Your task to perform on an android device: Open privacy settings Image 0: 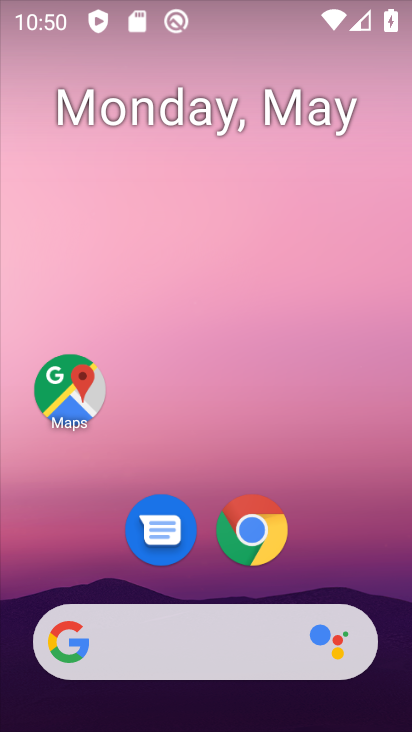
Step 0: drag from (346, 546) to (317, 59)
Your task to perform on an android device: Open privacy settings Image 1: 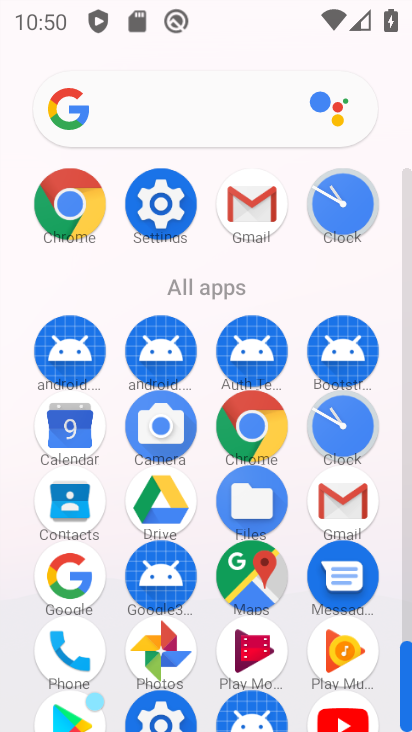
Step 1: drag from (2, 461) to (14, 121)
Your task to perform on an android device: Open privacy settings Image 2: 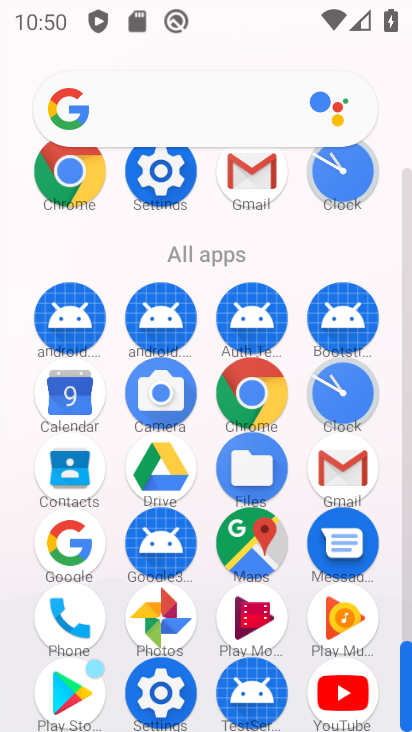
Step 2: drag from (31, 594) to (32, 270)
Your task to perform on an android device: Open privacy settings Image 3: 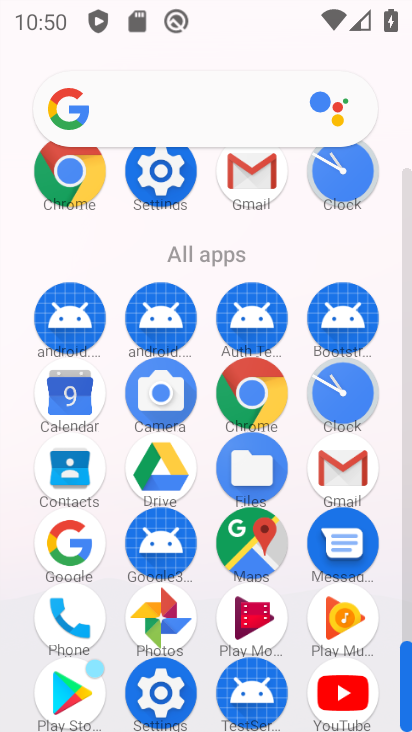
Step 3: click (251, 386)
Your task to perform on an android device: Open privacy settings Image 4: 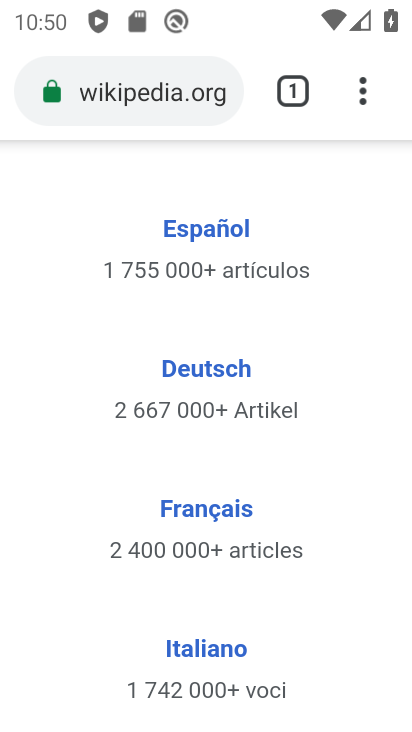
Step 4: drag from (367, 96) to (97, 565)
Your task to perform on an android device: Open privacy settings Image 5: 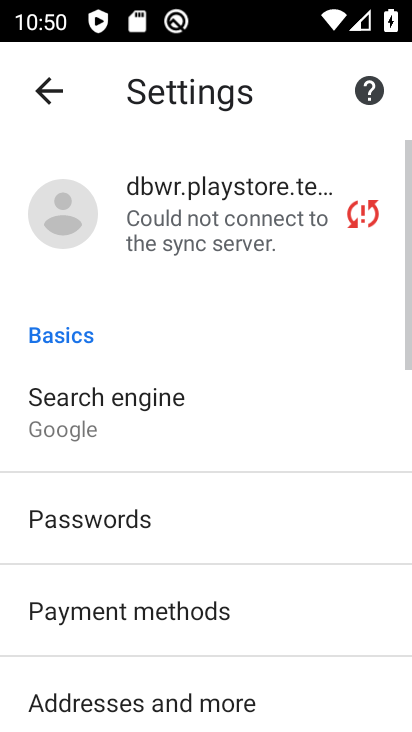
Step 5: drag from (221, 581) to (224, 208)
Your task to perform on an android device: Open privacy settings Image 6: 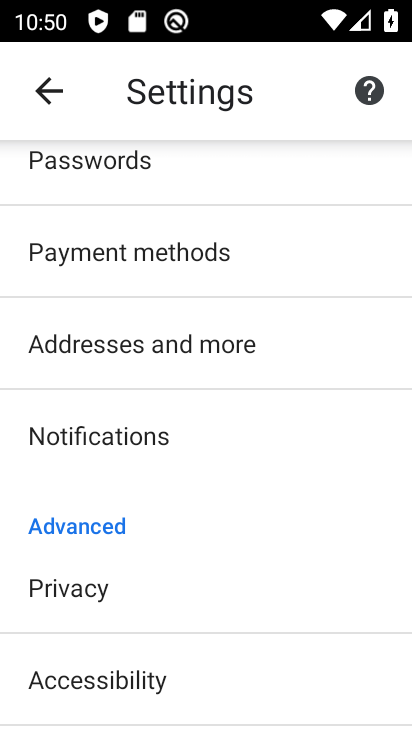
Step 6: click (127, 599)
Your task to perform on an android device: Open privacy settings Image 7: 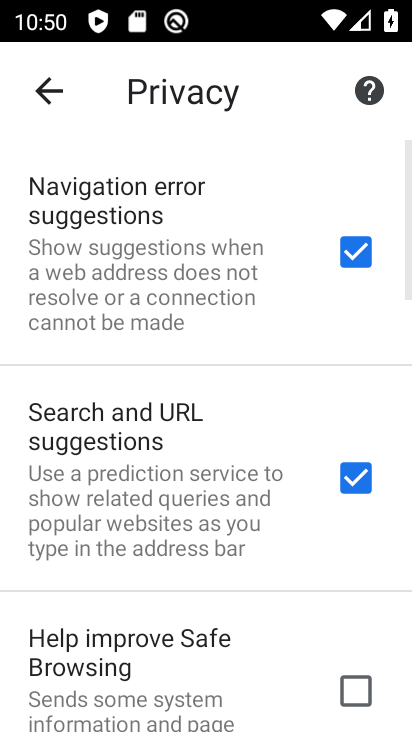
Step 7: task complete